Your task to perform on an android device: Open the Play Movies app and select the watchlist tab. Image 0: 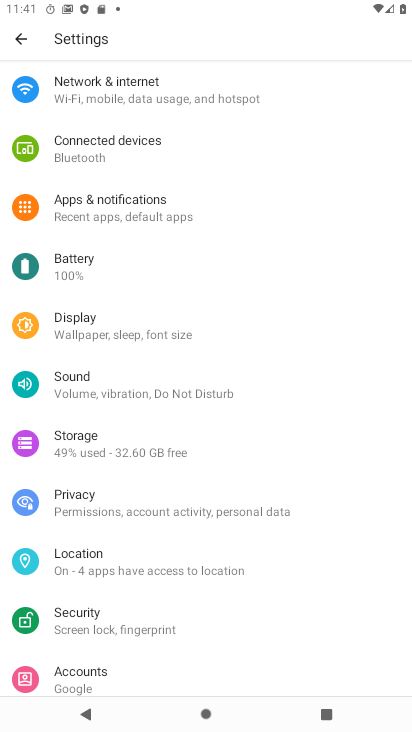
Step 0: press back button
Your task to perform on an android device: Open the Play Movies app and select the watchlist tab. Image 1: 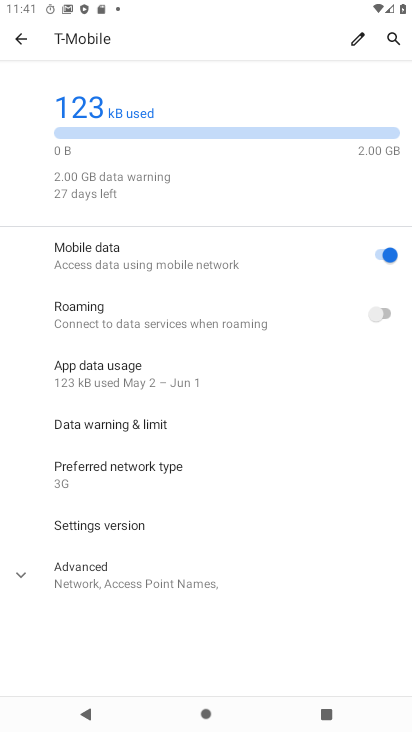
Step 1: press back button
Your task to perform on an android device: Open the Play Movies app and select the watchlist tab. Image 2: 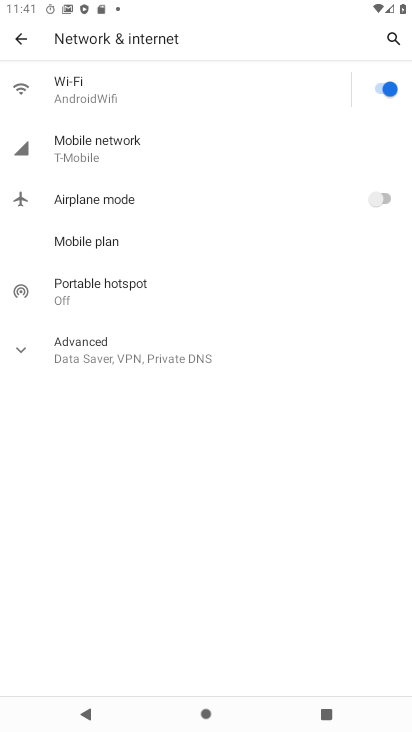
Step 2: press back button
Your task to perform on an android device: Open the Play Movies app and select the watchlist tab. Image 3: 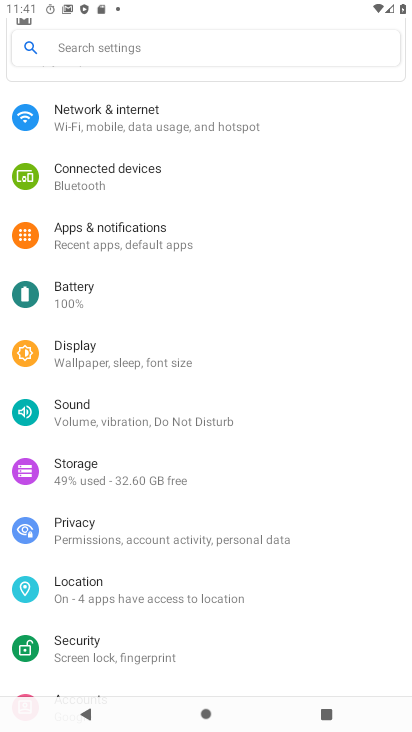
Step 3: press back button
Your task to perform on an android device: Open the Play Movies app and select the watchlist tab. Image 4: 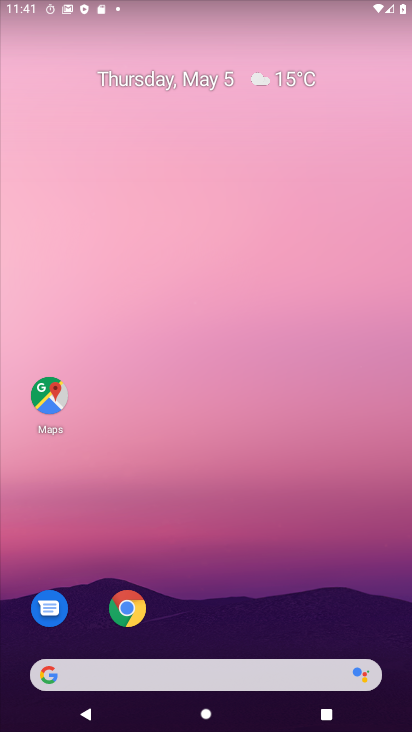
Step 4: drag from (242, 616) to (220, 42)
Your task to perform on an android device: Open the Play Movies app and select the watchlist tab. Image 5: 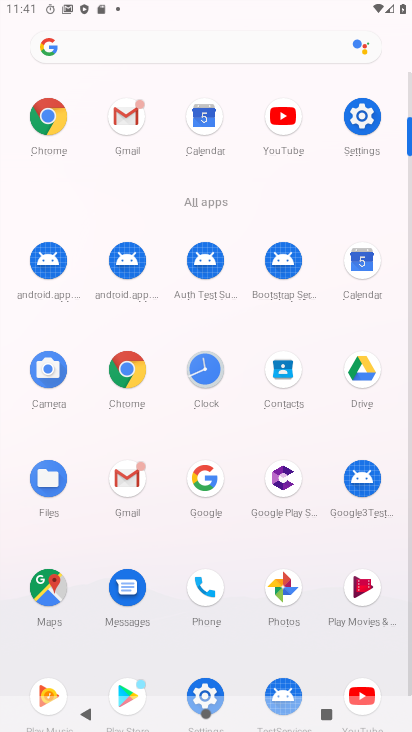
Step 5: click (362, 587)
Your task to perform on an android device: Open the Play Movies app and select the watchlist tab. Image 6: 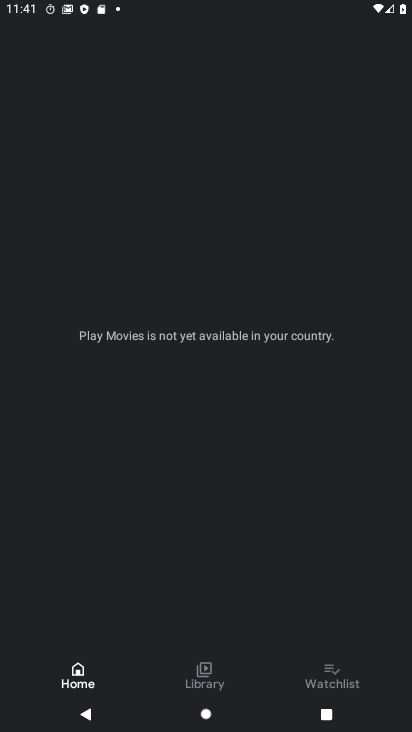
Step 6: click (338, 686)
Your task to perform on an android device: Open the Play Movies app and select the watchlist tab. Image 7: 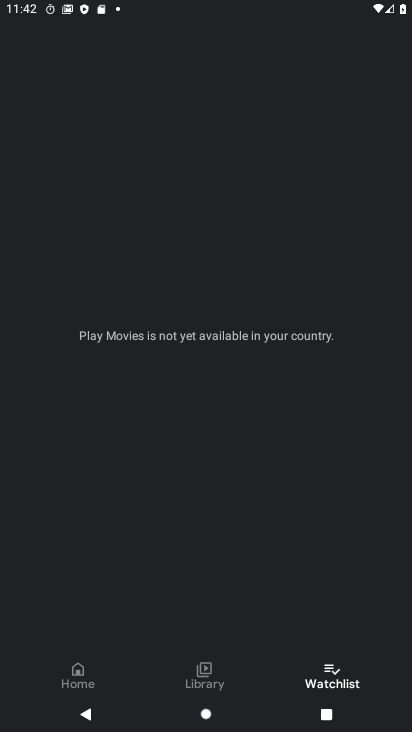
Step 7: task complete